Your task to perform on an android device: change keyboard looks Image 0: 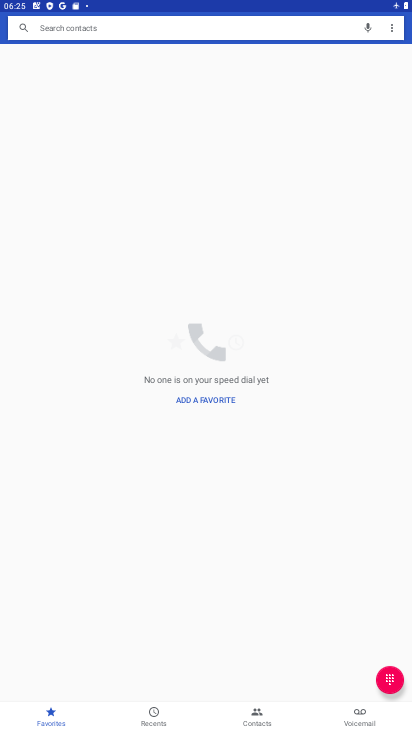
Step 0: press home button
Your task to perform on an android device: change keyboard looks Image 1: 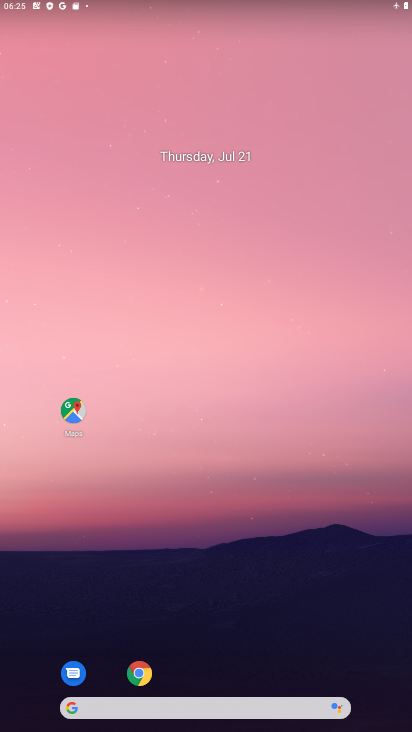
Step 1: drag from (187, 628) to (130, 205)
Your task to perform on an android device: change keyboard looks Image 2: 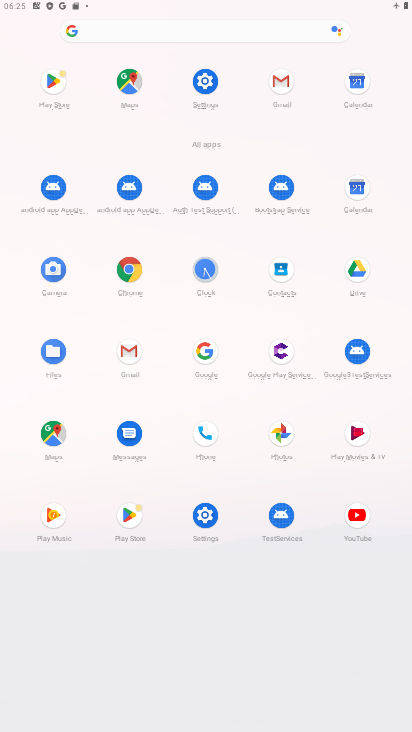
Step 2: click (204, 85)
Your task to perform on an android device: change keyboard looks Image 3: 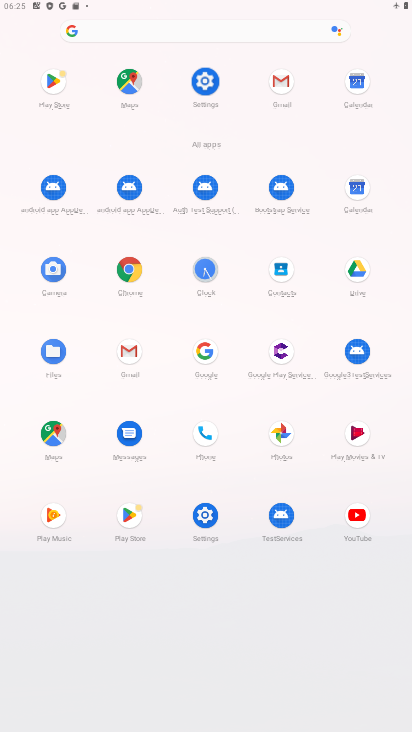
Step 3: click (204, 85)
Your task to perform on an android device: change keyboard looks Image 4: 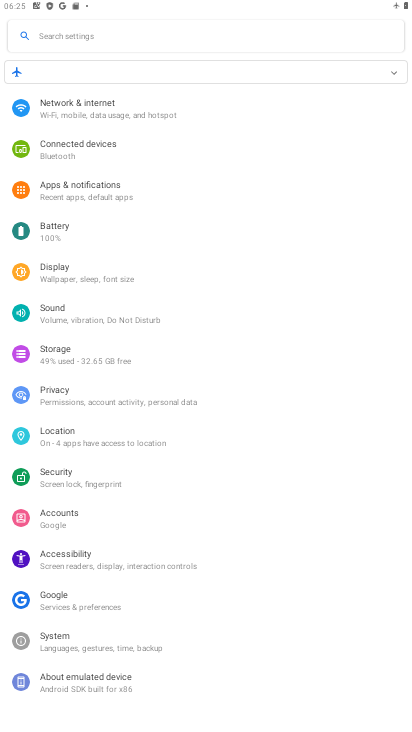
Step 4: click (82, 631)
Your task to perform on an android device: change keyboard looks Image 5: 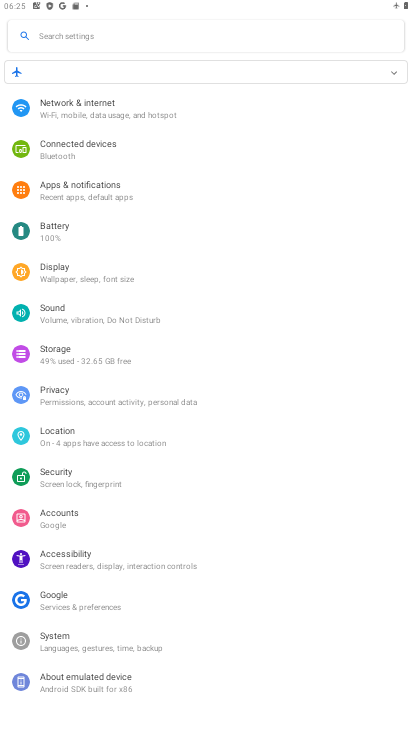
Step 5: click (74, 644)
Your task to perform on an android device: change keyboard looks Image 6: 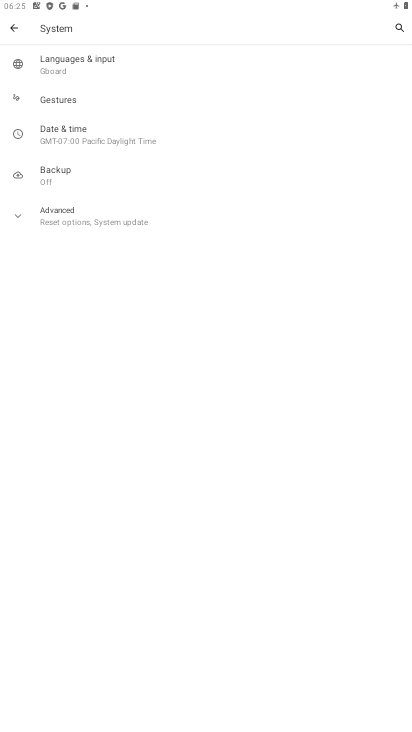
Step 6: click (58, 71)
Your task to perform on an android device: change keyboard looks Image 7: 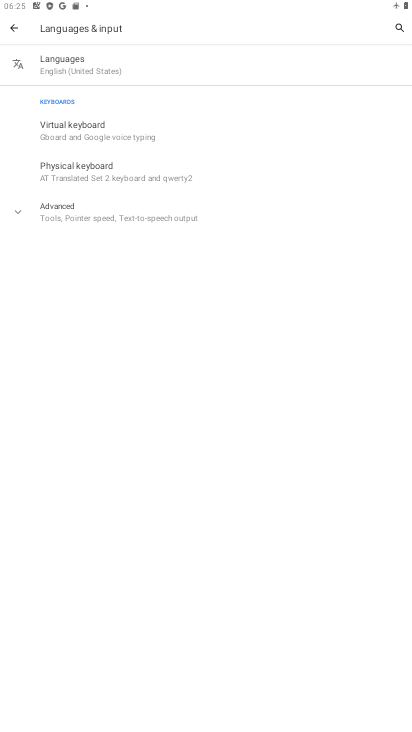
Step 7: click (55, 127)
Your task to perform on an android device: change keyboard looks Image 8: 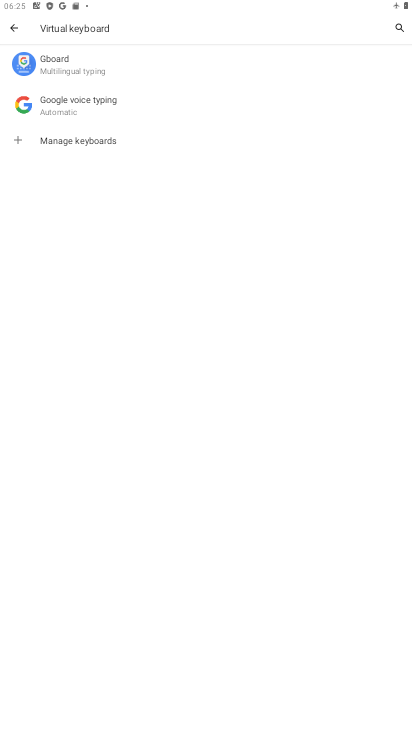
Step 8: click (52, 67)
Your task to perform on an android device: change keyboard looks Image 9: 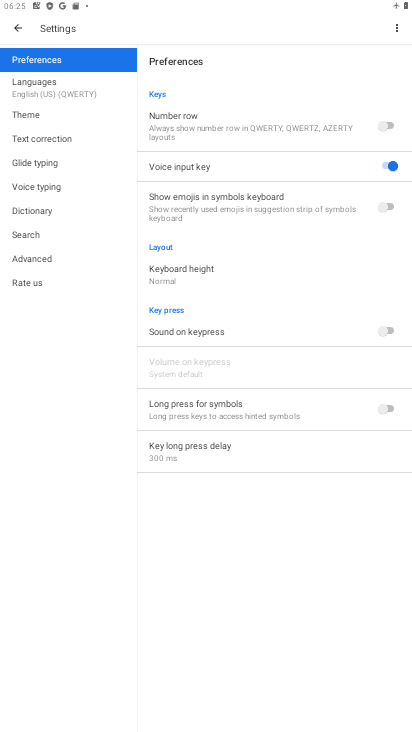
Step 9: click (18, 33)
Your task to perform on an android device: change keyboard looks Image 10: 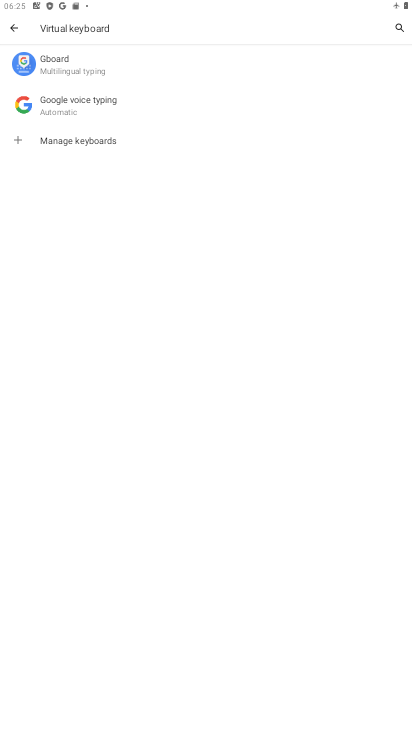
Step 10: click (40, 66)
Your task to perform on an android device: change keyboard looks Image 11: 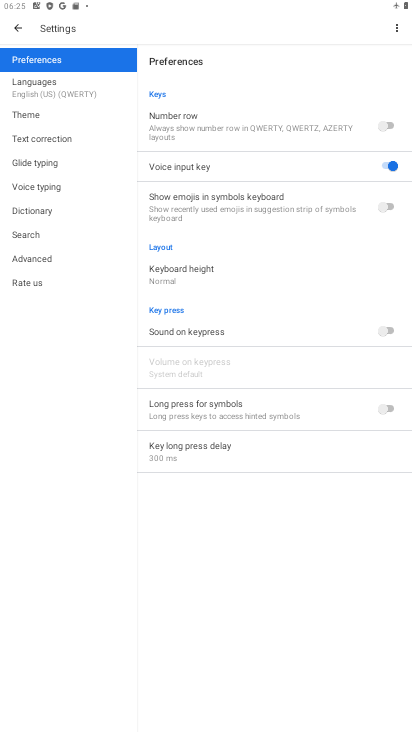
Step 11: click (25, 117)
Your task to perform on an android device: change keyboard looks Image 12: 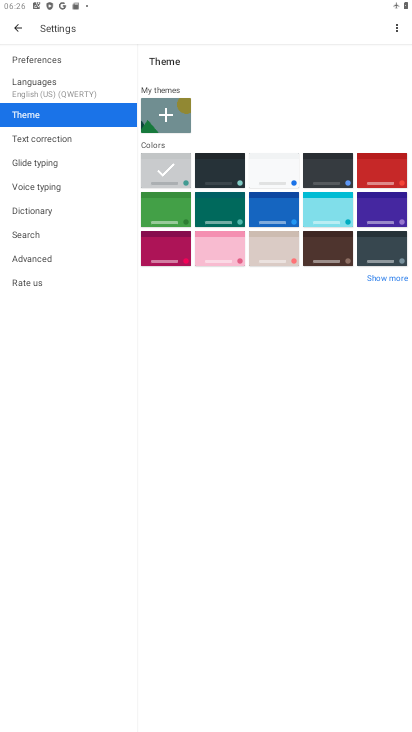
Step 12: click (204, 170)
Your task to perform on an android device: change keyboard looks Image 13: 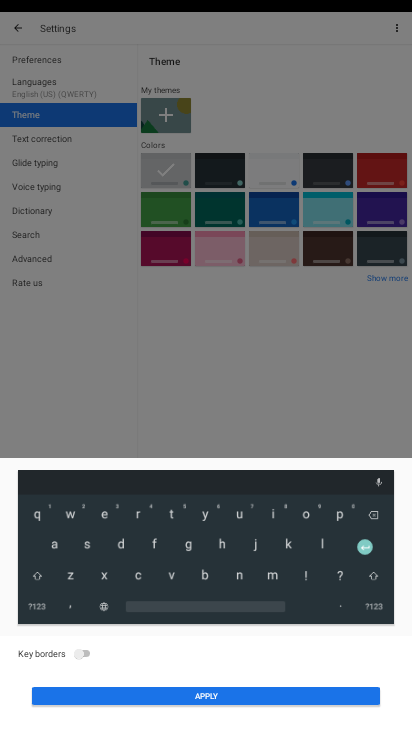
Step 13: click (230, 700)
Your task to perform on an android device: change keyboard looks Image 14: 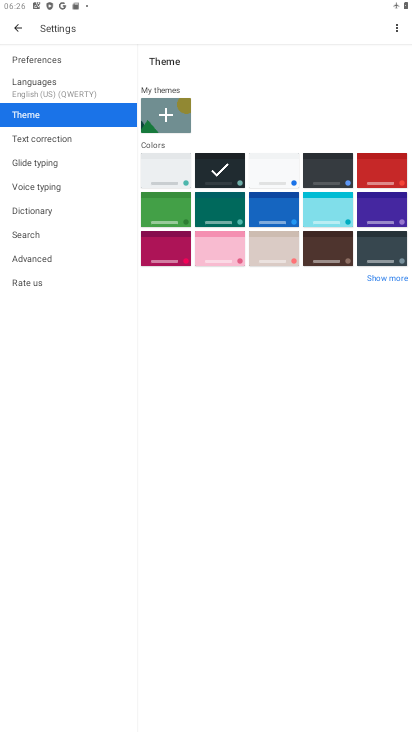
Step 14: task complete